Your task to perform on an android device: Go to notification settings Image 0: 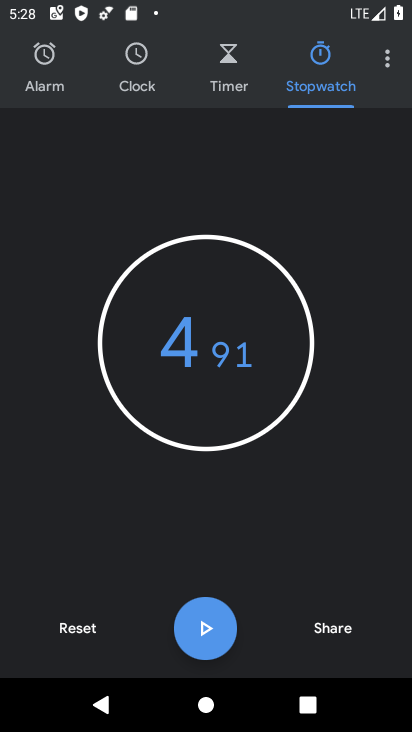
Step 0: press home button
Your task to perform on an android device: Go to notification settings Image 1: 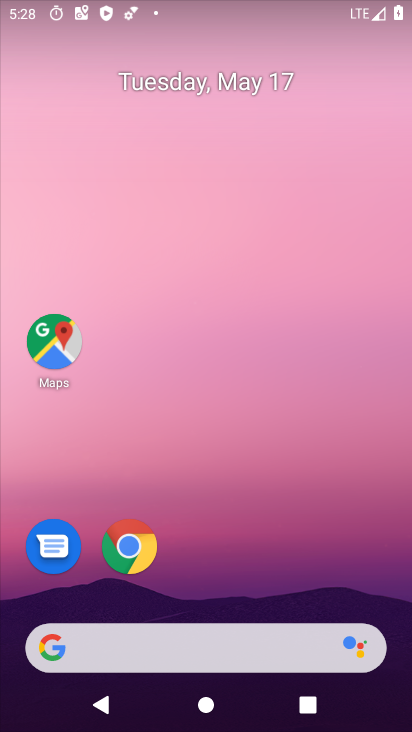
Step 1: drag from (238, 580) to (169, 152)
Your task to perform on an android device: Go to notification settings Image 2: 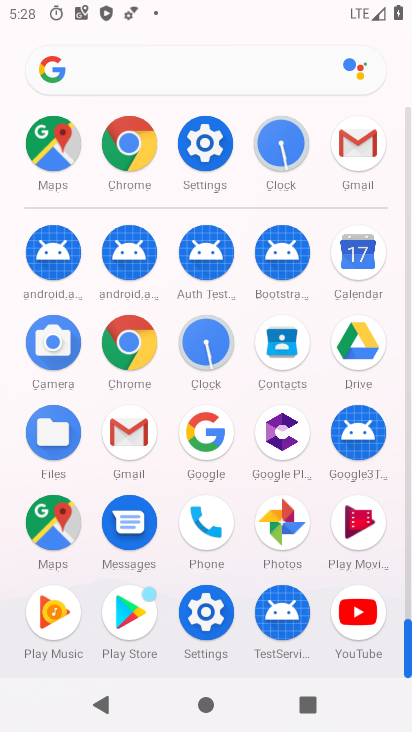
Step 2: click (196, 626)
Your task to perform on an android device: Go to notification settings Image 3: 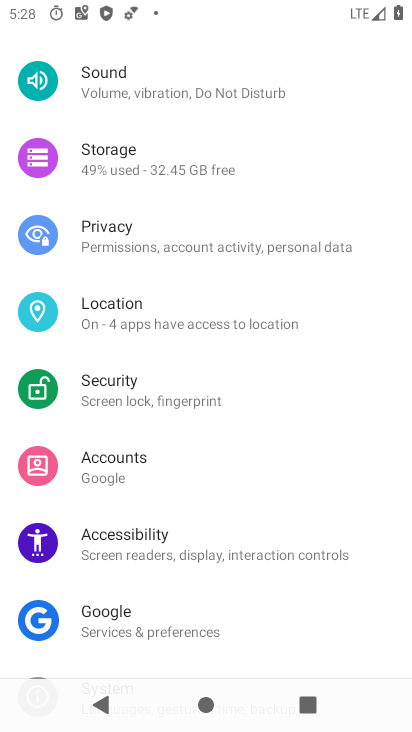
Step 3: drag from (168, 177) to (99, 657)
Your task to perform on an android device: Go to notification settings Image 4: 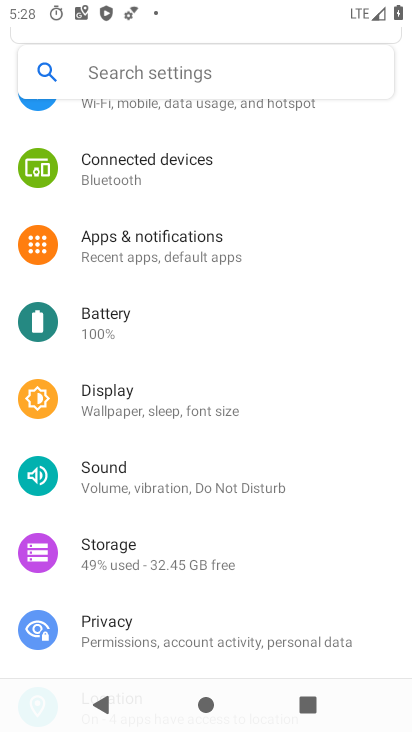
Step 4: click (120, 255)
Your task to perform on an android device: Go to notification settings Image 5: 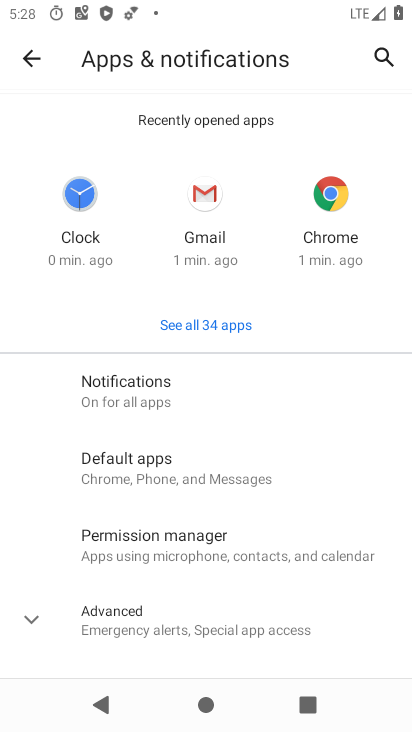
Step 5: click (133, 394)
Your task to perform on an android device: Go to notification settings Image 6: 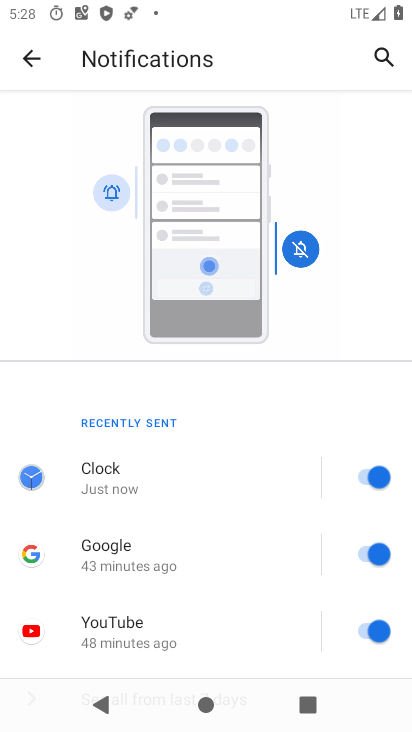
Step 6: drag from (192, 599) to (224, 262)
Your task to perform on an android device: Go to notification settings Image 7: 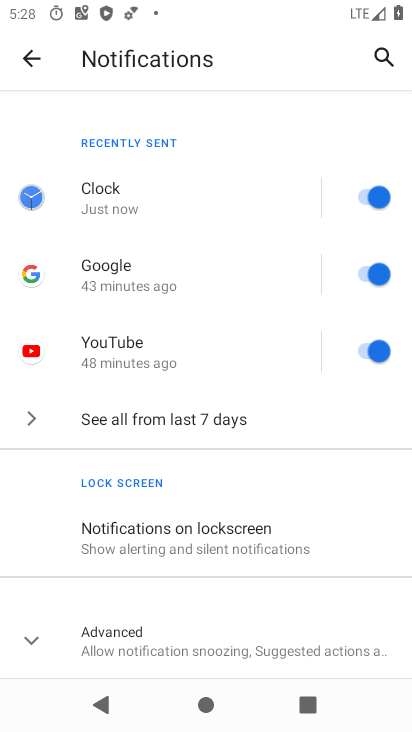
Step 7: click (198, 544)
Your task to perform on an android device: Go to notification settings Image 8: 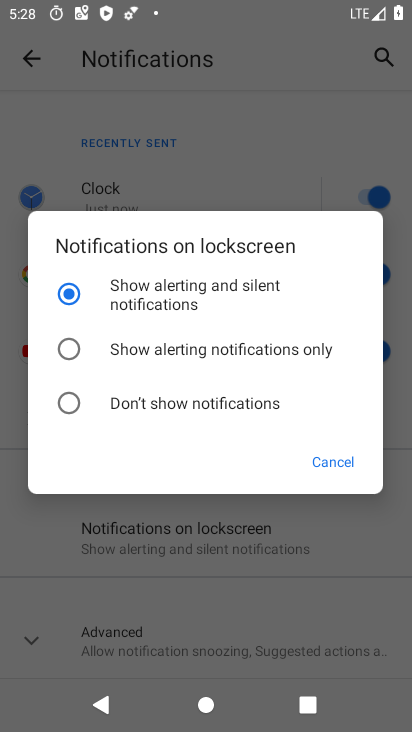
Step 8: click (59, 408)
Your task to perform on an android device: Go to notification settings Image 9: 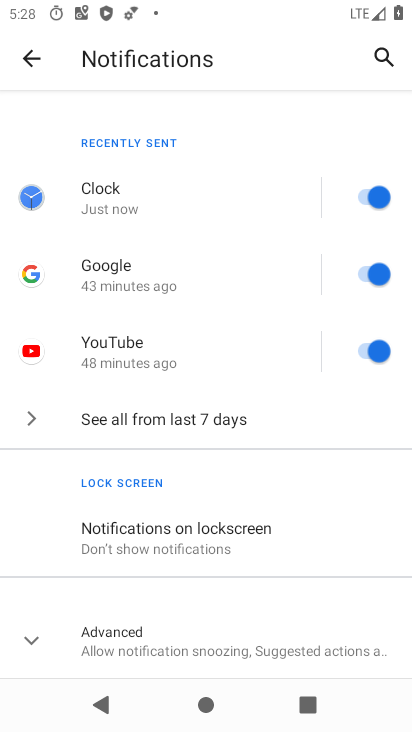
Step 9: task complete